Your task to perform on an android device: Open Chrome and go to the settings page Image 0: 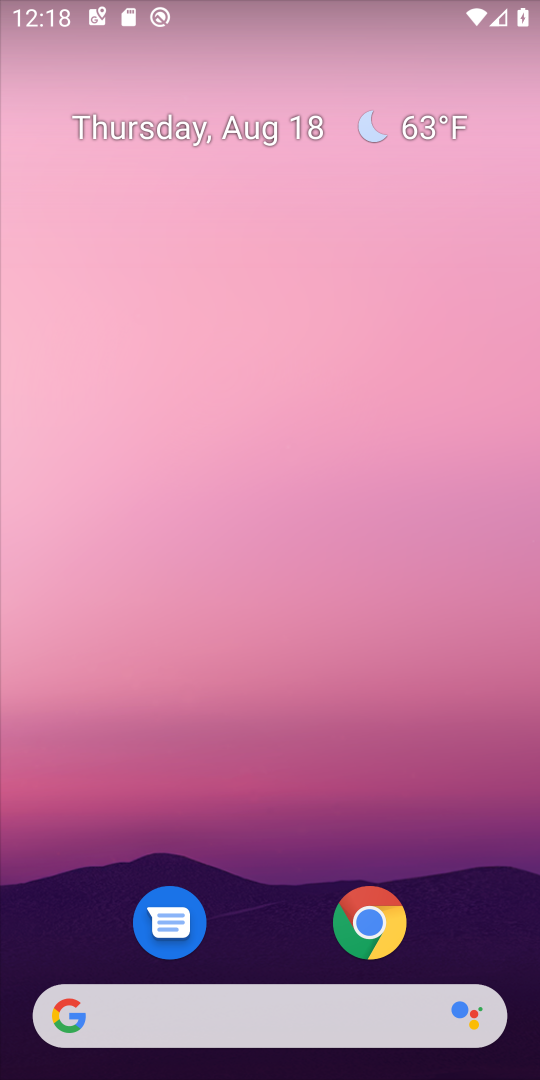
Step 0: click (373, 928)
Your task to perform on an android device: Open Chrome and go to the settings page Image 1: 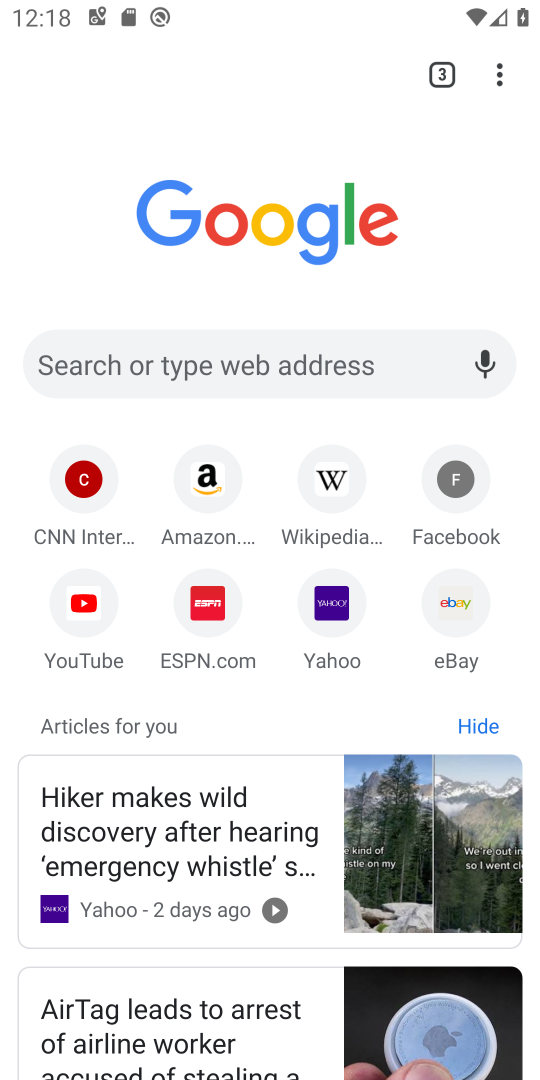
Step 1: click (492, 64)
Your task to perform on an android device: Open Chrome and go to the settings page Image 2: 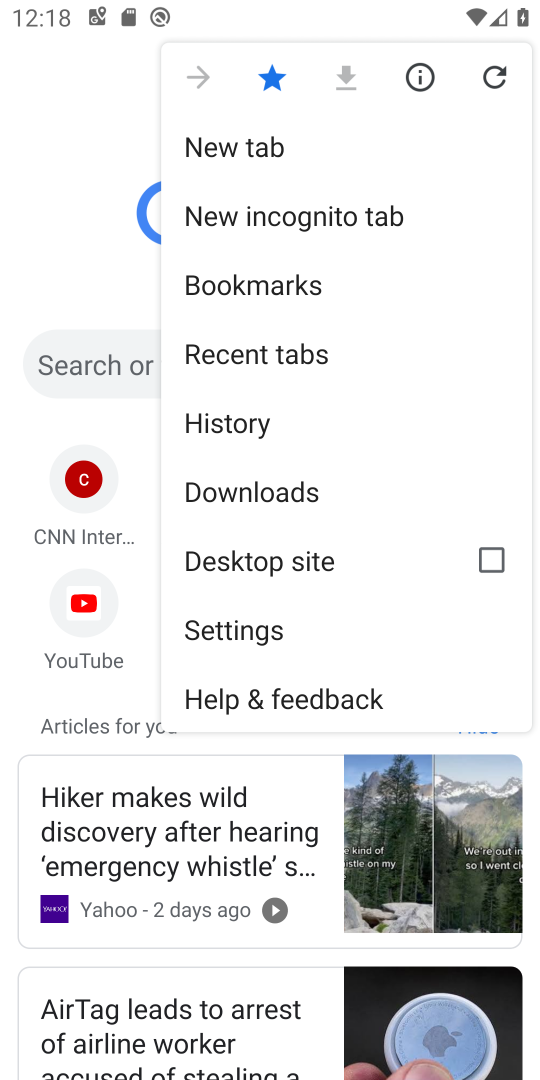
Step 2: click (239, 636)
Your task to perform on an android device: Open Chrome and go to the settings page Image 3: 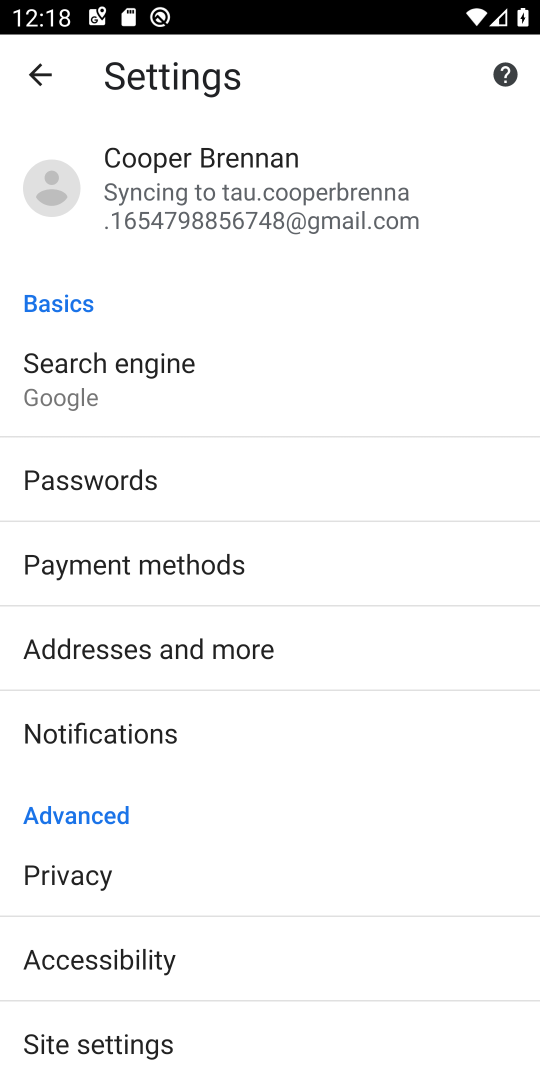
Step 3: task complete